Your task to perform on an android device: What's the weather going to be this weekend? Image 0: 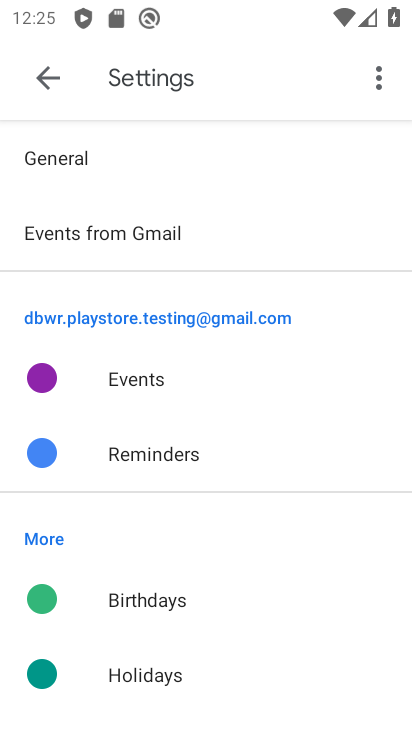
Step 0: press back button
Your task to perform on an android device: What's the weather going to be this weekend? Image 1: 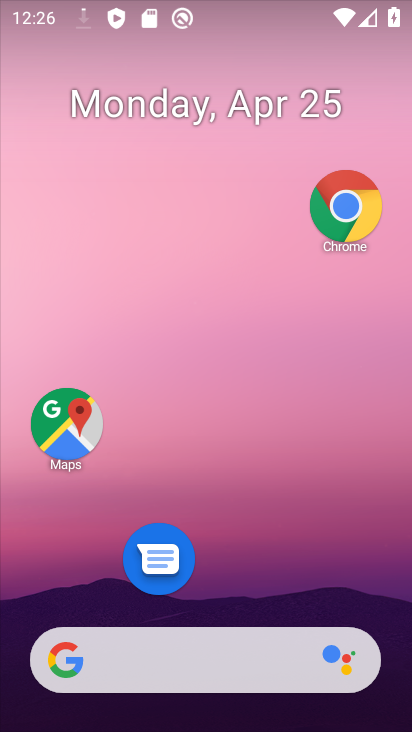
Step 1: click (146, 672)
Your task to perform on an android device: What's the weather going to be this weekend? Image 2: 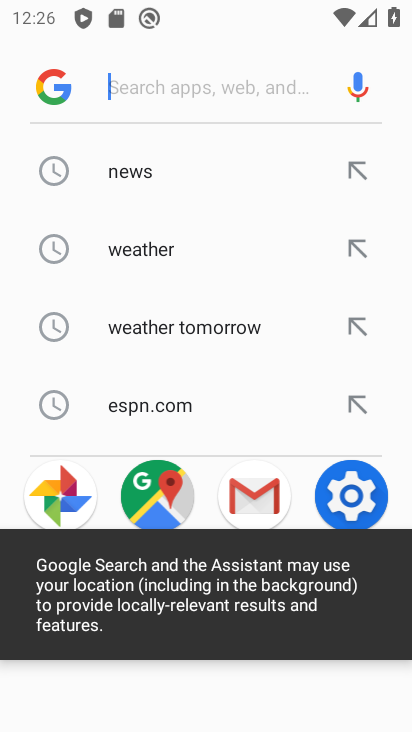
Step 2: click (162, 251)
Your task to perform on an android device: What's the weather going to be this weekend? Image 3: 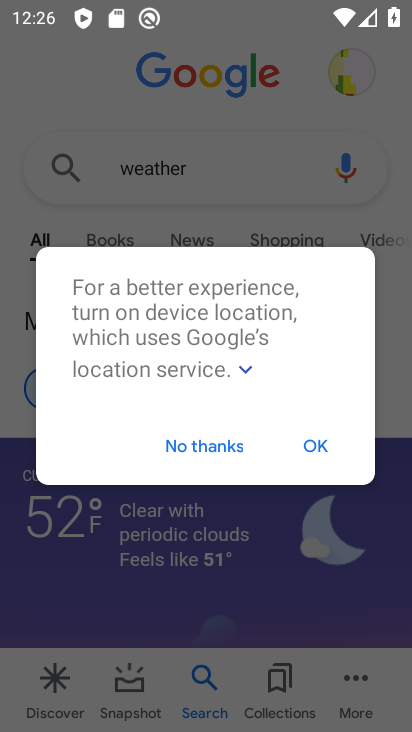
Step 3: click (309, 450)
Your task to perform on an android device: What's the weather going to be this weekend? Image 4: 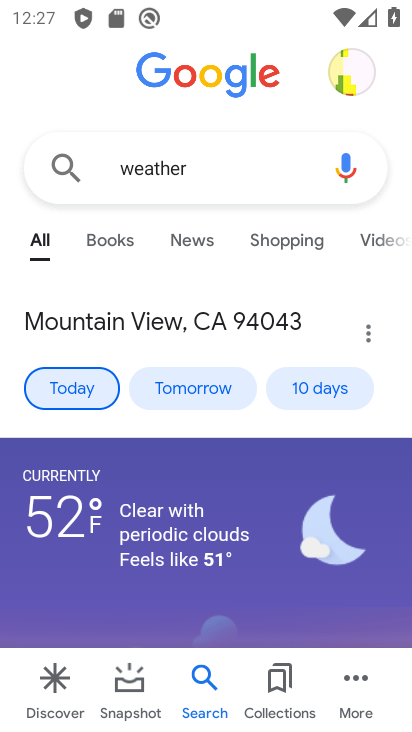
Step 4: drag from (164, 588) to (232, 100)
Your task to perform on an android device: What's the weather going to be this weekend? Image 5: 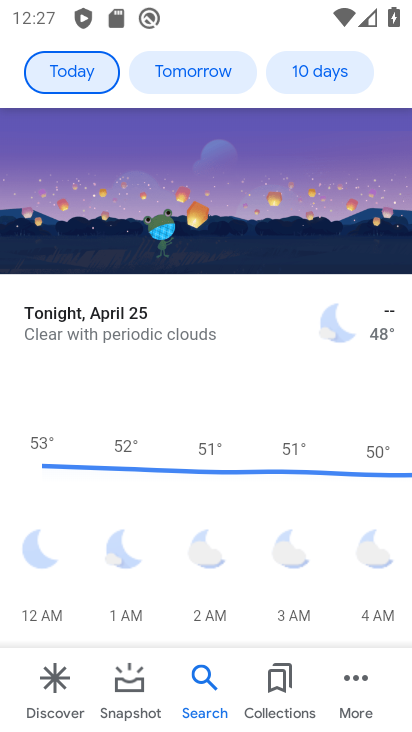
Step 5: drag from (194, 522) to (224, 456)
Your task to perform on an android device: What's the weather going to be this weekend? Image 6: 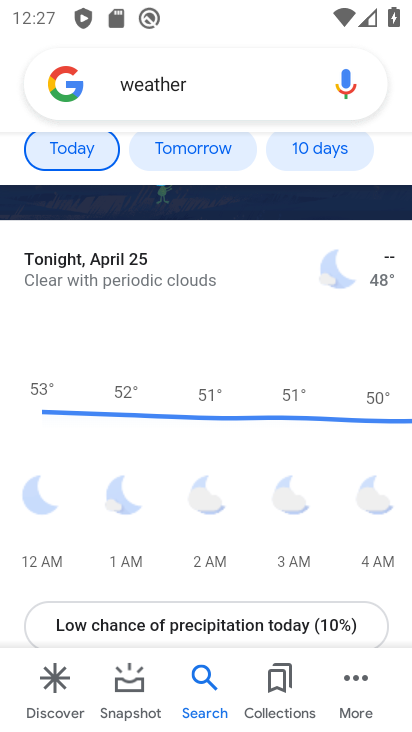
Step 6: click (323, 67)
Your task to perform on an android device: What's the weather going to be this weekend? Image 7: 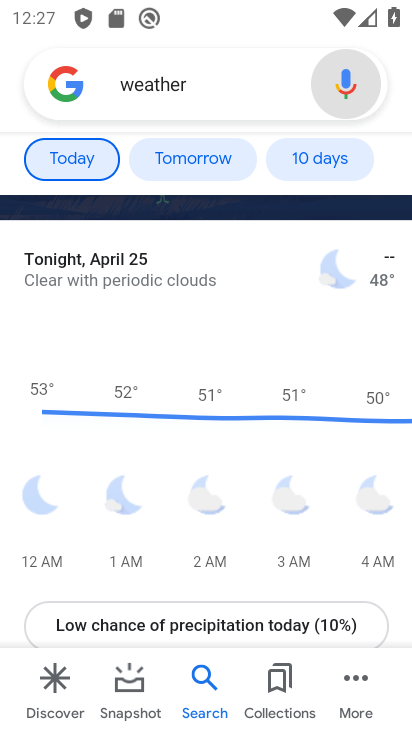
Step 7: click (302, 155)
Your task to perform on an android device: What's the weather going to be this weekend? Image 8: 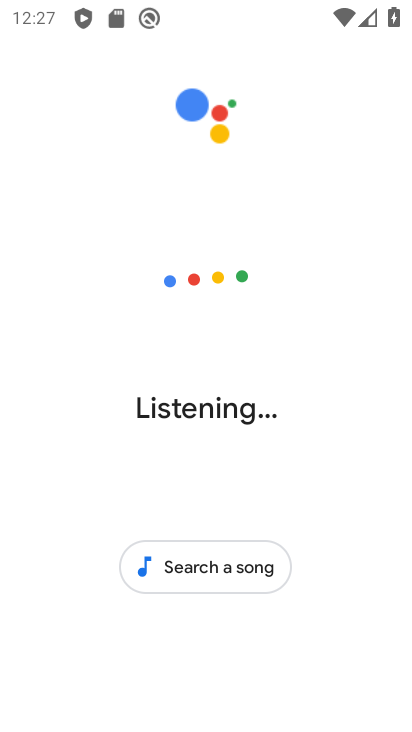
Step 8: press back button
Your task to perform on an android device: What's the weather going to be this weekend? Image 9: 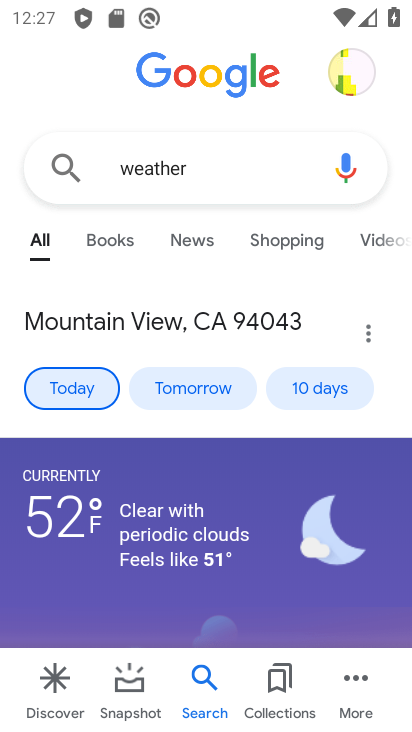
Step 9: click (290, 385)
Your task to perform on an android device: What's the weather going to be this weekend? Image 10: 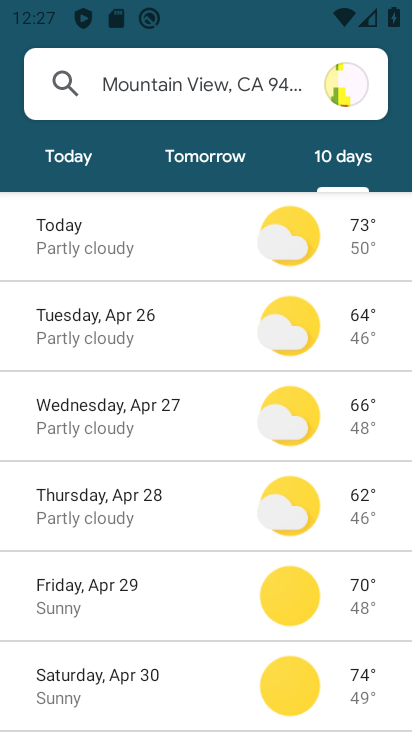
Step 10: click (104, 690)
Your task to perform on an android device: What's the weather going to be this weekend? Image 11: 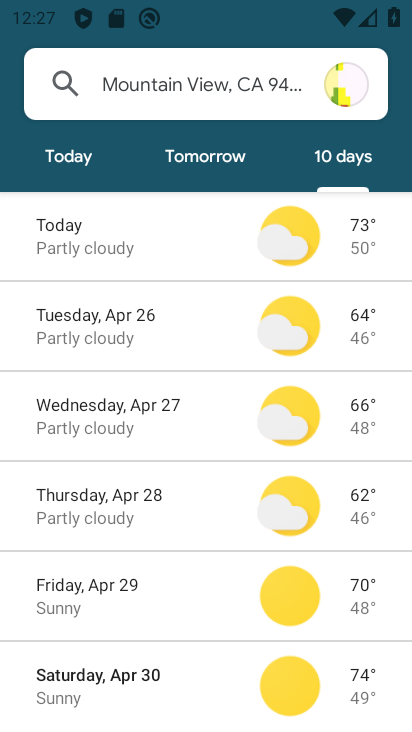
Step 11: task complete